Your task to perform on an android device: see tabs open on other devices in the chrome app Image 0: 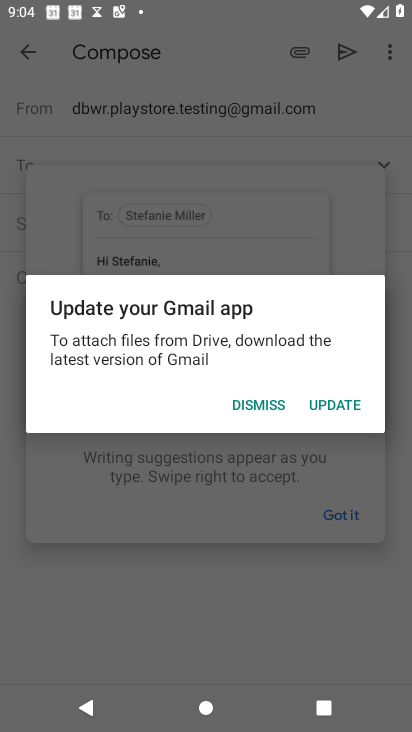
Step 0: press home button
Your task to perform on an android device: see tabs open on other devices in the chrome app Image 1: 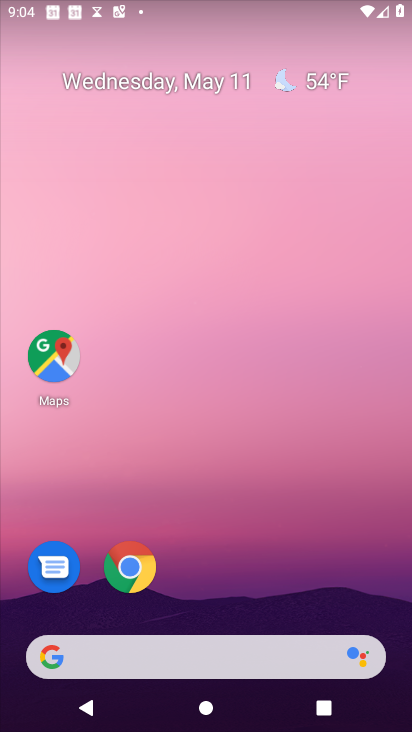
Step 1: click (130, 563)
Your task to perform on an android device: see tabs open on other devices in the chrome app Image 2: 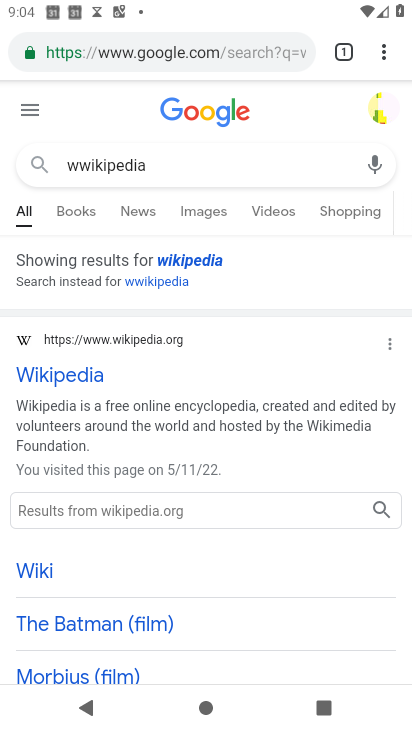
Step 2: click (390, 57)
Your task to perform on an android device: see tabs open on other devices in the chrome app Image 3: 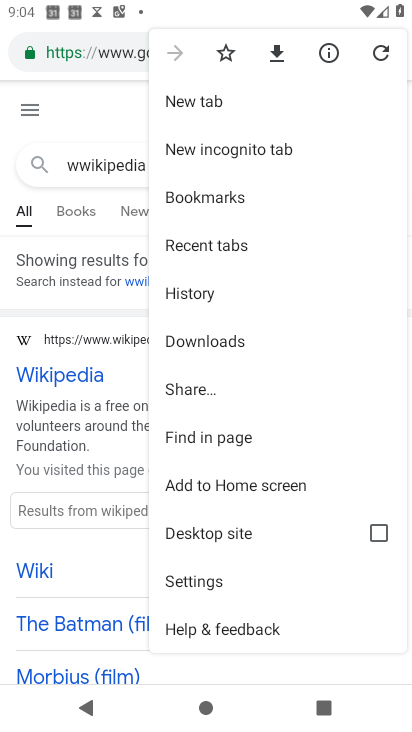
Step 3: click (218, 245)
Your task to perform on an android device: see tabs open on other devices in the chrome app Image 4: 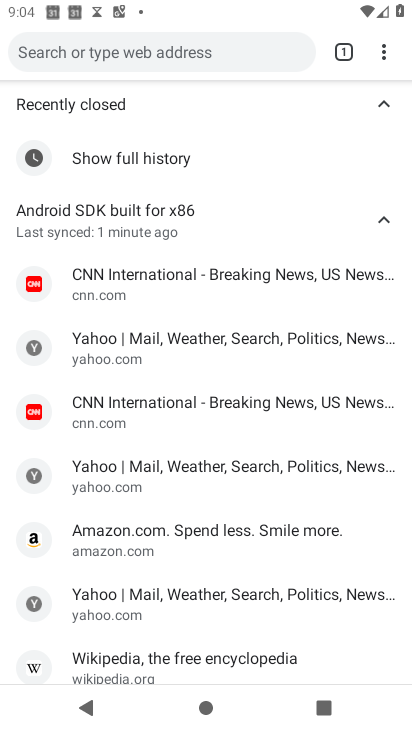
Step 4: task complete